Your task to perform on an android device: Open Android settings Image 0: 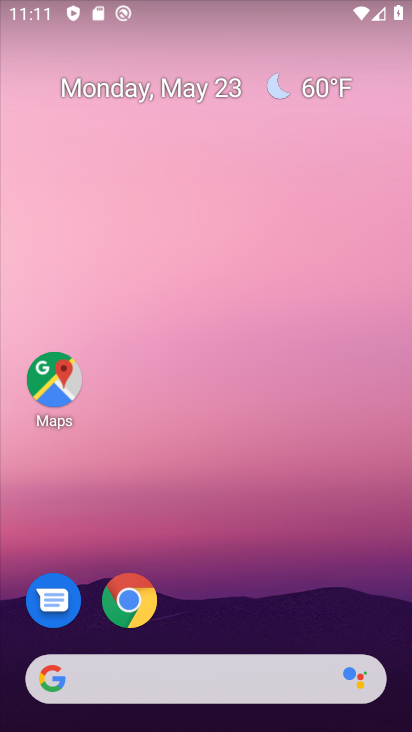
Step 0: click (259, 249)
Your task to perform on an android device: Open Android settings Image 1: 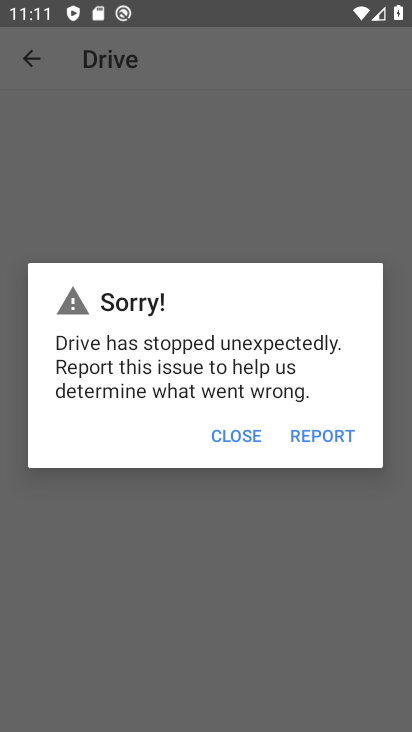
Step 1: press home button
Your task to perform on an android device: Open Android settings Image 2: 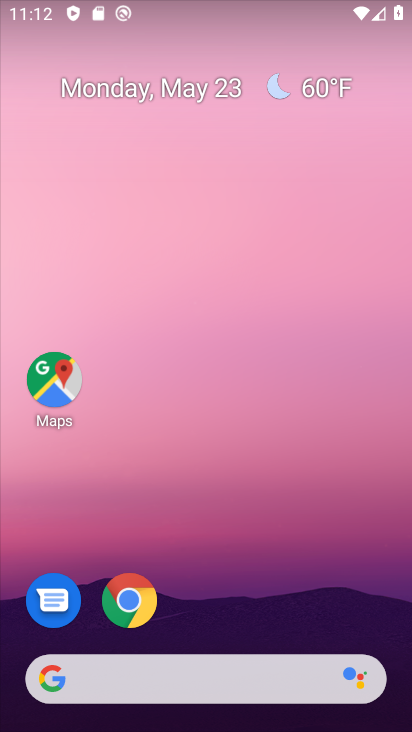
Step 2: drag from (201, 715) to (106, 66)
Your task to perform on an android device: Open Android settings Image 3: 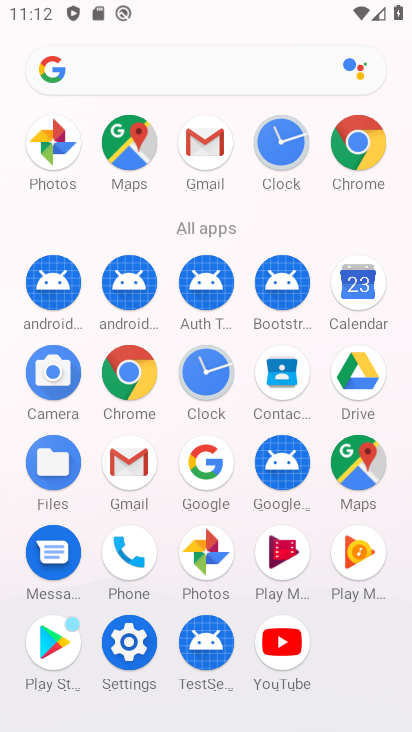
Step 3: click (130, 633)
Your task to perform on an android device: Open Android settings Image 4: 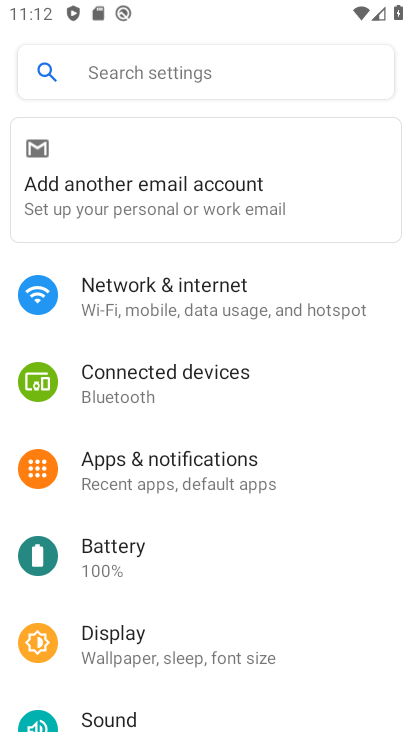
Step 4: click (119, 81)
Your task to perform on an android device: Open Android settings Image 5: 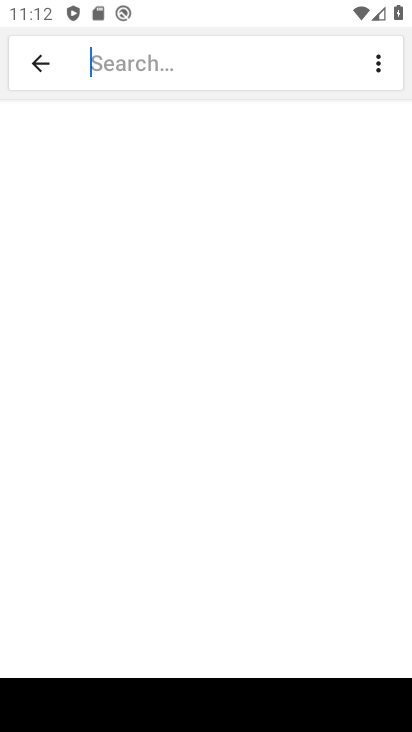
Step 5: drag from (369, 716) to (309, 457)
Your task to perform on an android device: Open Android settings Image 6: 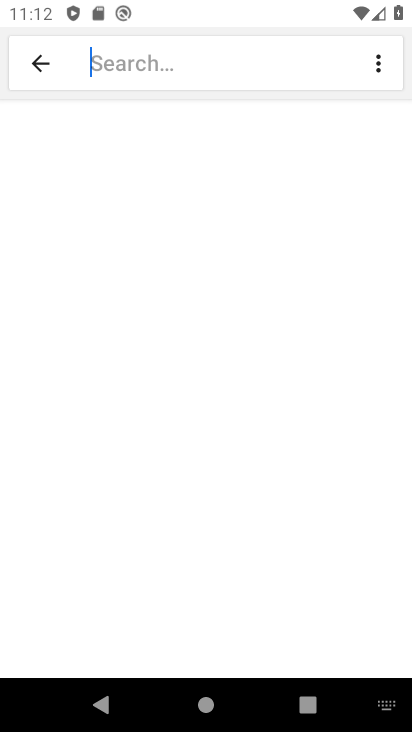
Step 6: click (390, 706)
Your task to perform on an android device: Open Android settings Image 7: 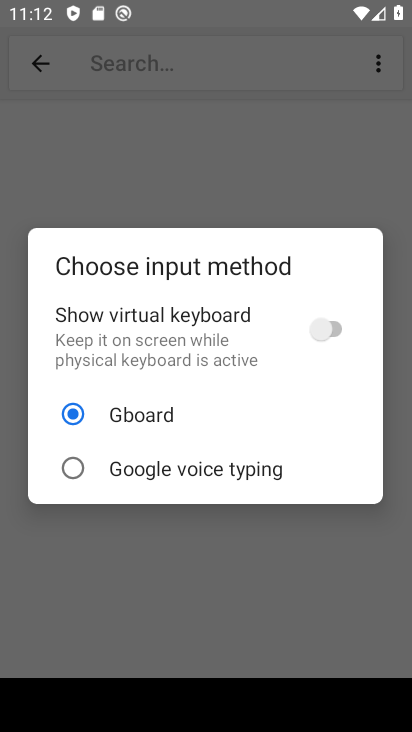
Step 7: click (326, 324)
Your task to perform on an android device: Open Android settings Image 8: 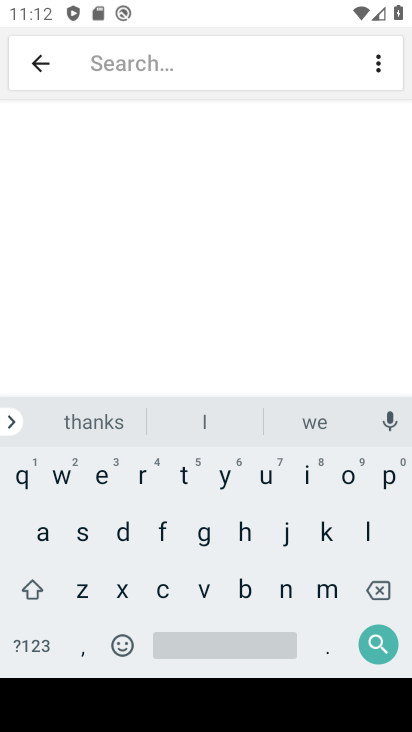
Step 8: click (38, 525)
Your task to perform on an android device: Open Android settings Image 9: 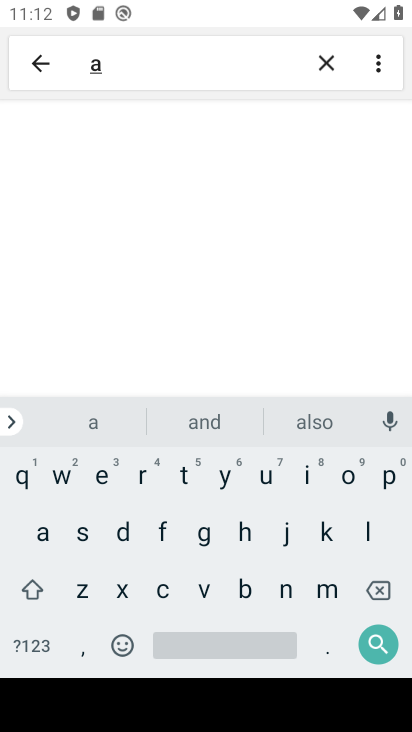
Step 9: click (290, 592)
Your task to perform on an android device: Open Android settings Image 10: 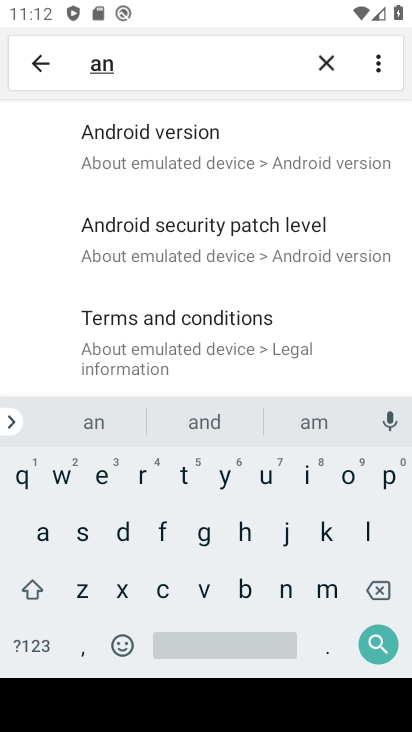
Step 10: click (172, 149)
Your task to perform on an android device: Open Android settings Image 11: 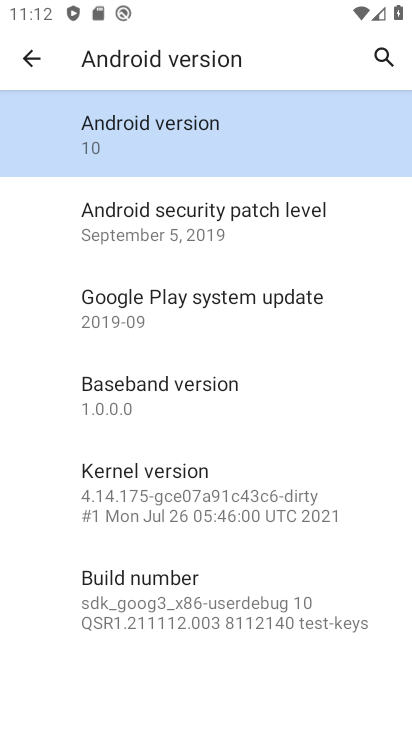
Step 11: task complete